Your task to perform on an android device: Show the shopping cart on ebay. Search for razer blade on ebay, select the first entry, and add it to the cart. Image 0: 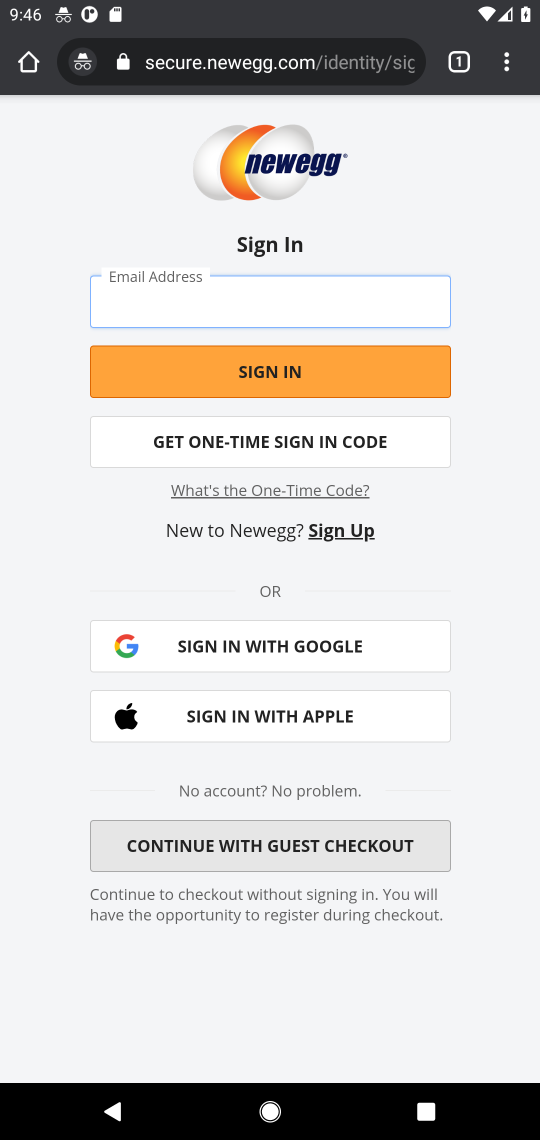
Step 0: press home button
Your task to perform on an android device: Show the shopping cart on ebay. Search for razer blade on ebay, select the first entry, and add it to the cart. Image 1: 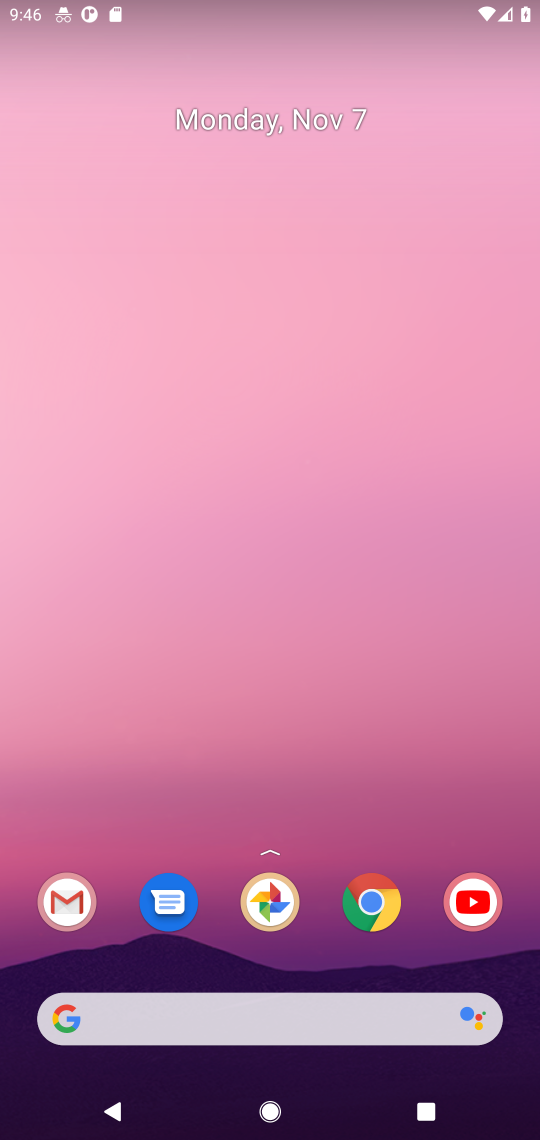
Step 1: click (382, 900)
Your task to perform on an android device: Show the shopping cart on ebay. Search for razer blade on ebay, select the first entry, and add it to the cart. Image 2: 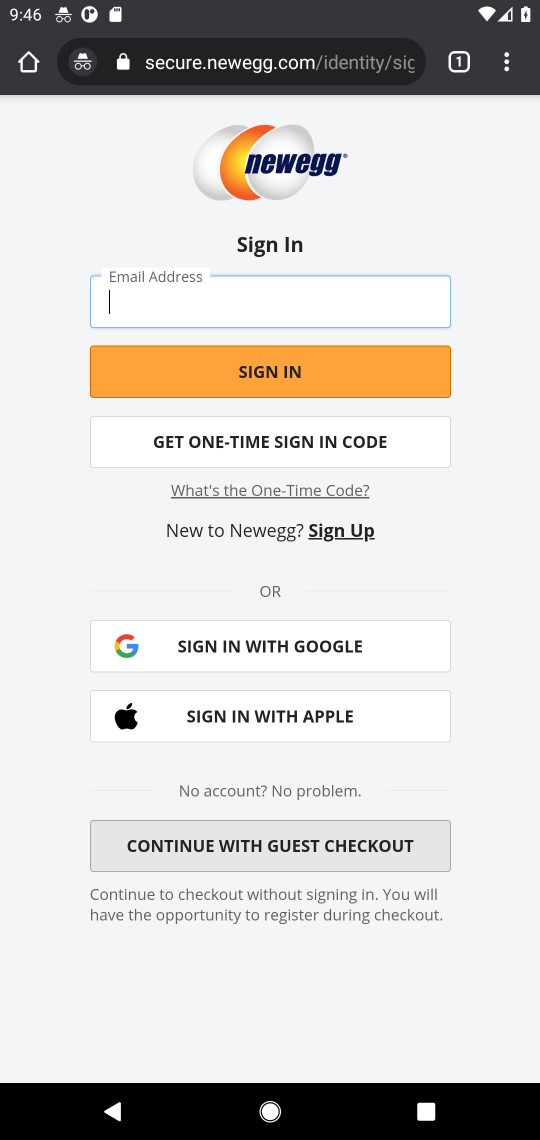
Step 2: click (261, 69)
Your task to perform on an android device: Show the shopping cart on ebay. Search for razer blade on ebay, select the first entry, and add it to the cart. Image 3: 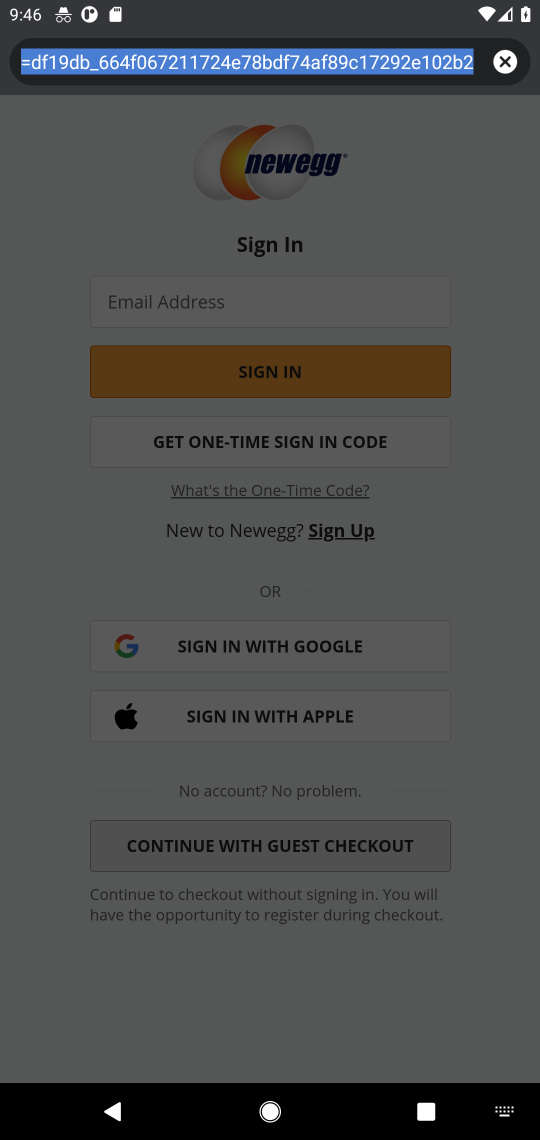
Step 3: type "ebay.com"
Your task to perform on an android device: Show the shopping cart on ebay. Search for razer blade on ebay, select the first entry, and add it to the cart. Image 4: 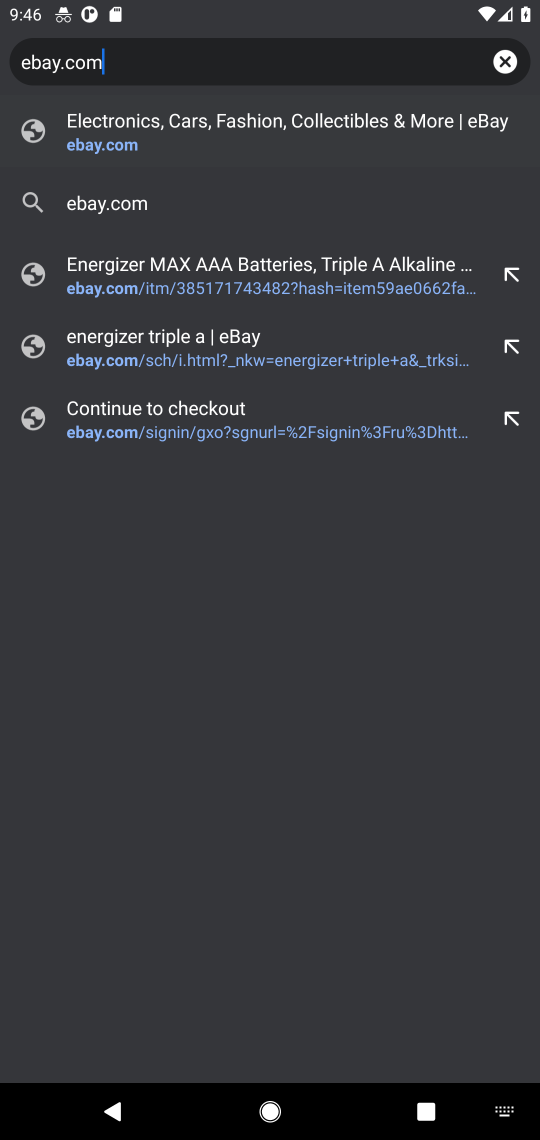
Step 4: click (113, 147)
Your task to perform on an android device: Show the shopping cart on ebay. Search for razer blade on ebay, select the first entry, and add it to the cart. Image 5: 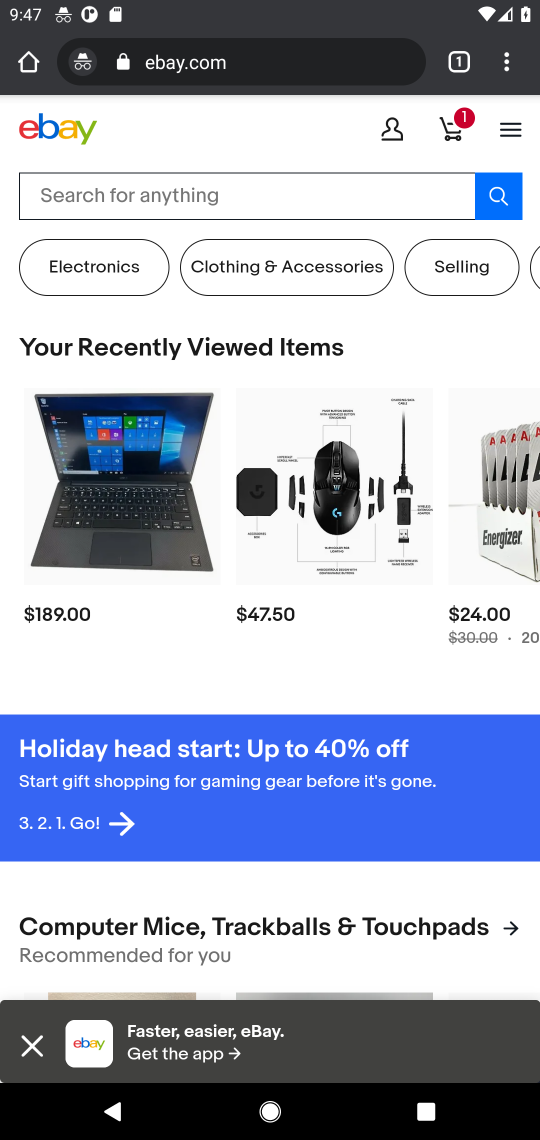
Step 5: click (453, 123)
Your task to perform on an android device: Show the shopping cart on ebay. Search for razer blade on ebay, select the first entry, and add it to the cart. Image 6: 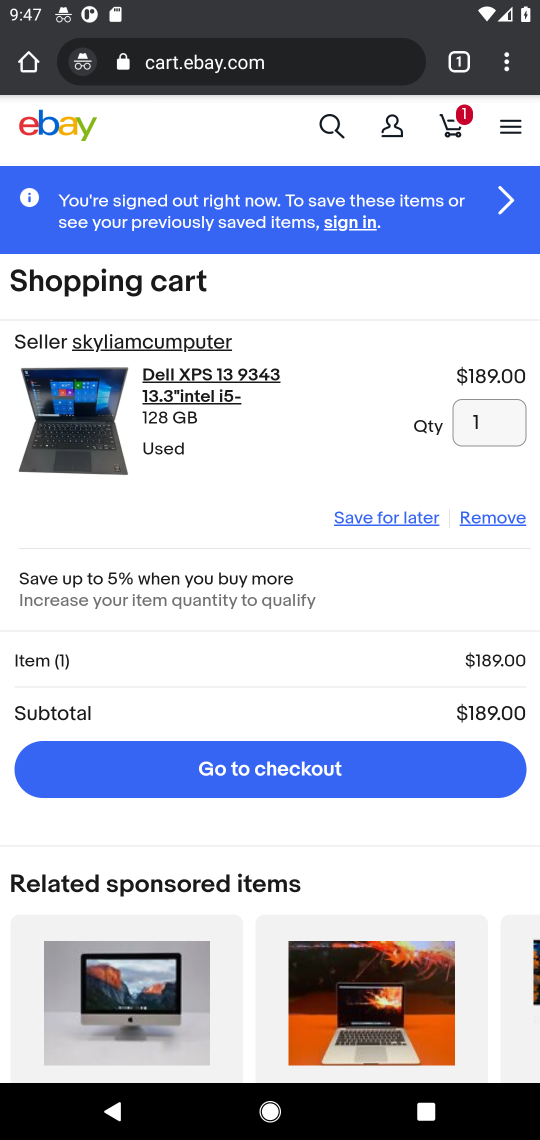
Step 6: click (338, 126)
Your task to perform on an android device: Show the shopping cart on ebay. Search for razer blade on ebay, select the first entry, and add it to the cart. Image 7: 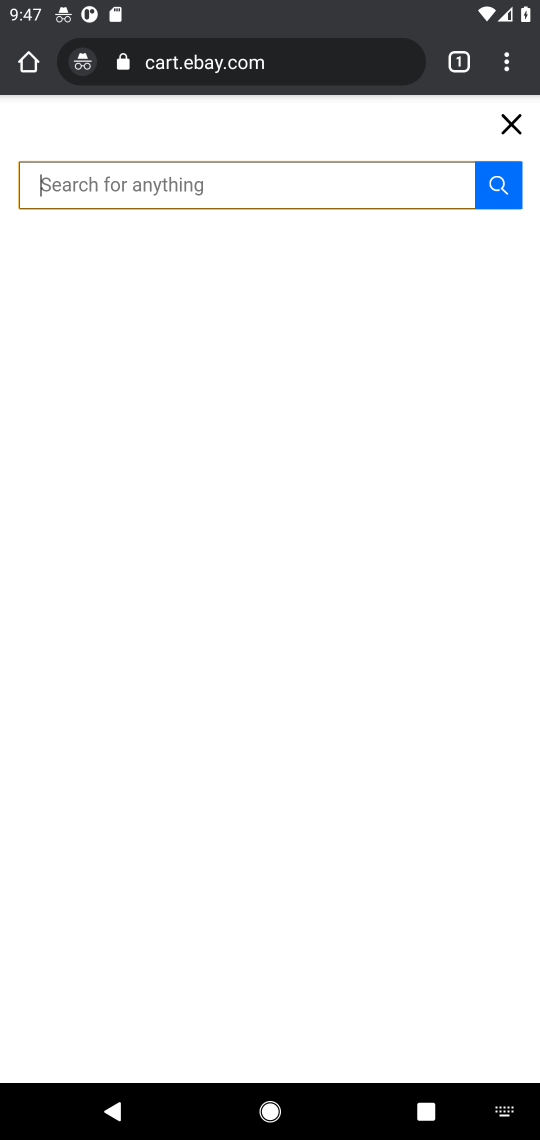
Step 7: type "razer blade"
Your task to perform on an android device: Show the shopping cart on ebay. Search for razer blade on ebay, select the first entry, and add it to the cart. Image 8: 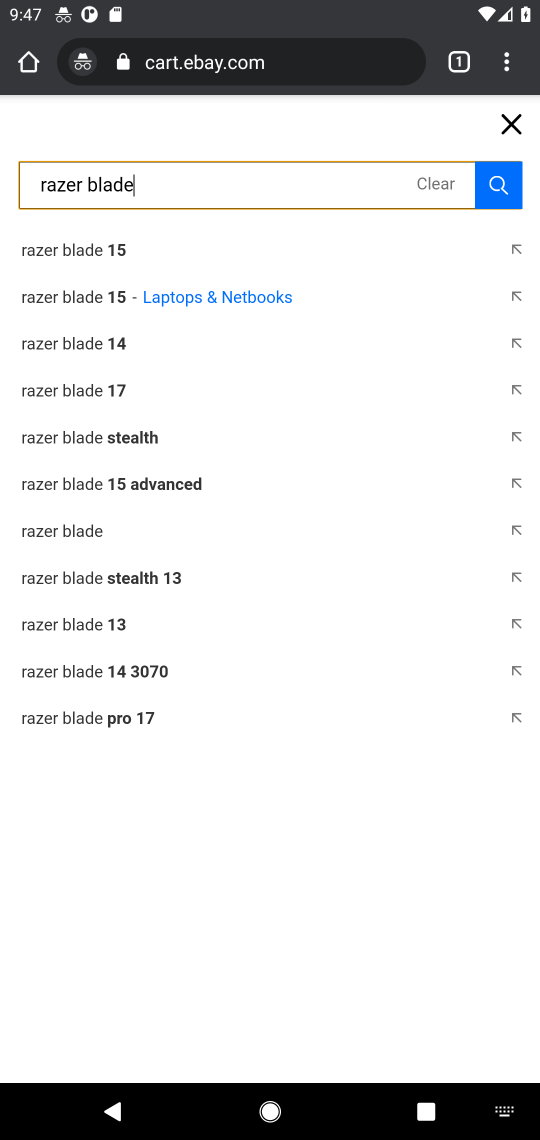
Step 8: click (72, 536)
Your task to perform on an android device: Show the shopping cart on ebay. Search for razer blade on ebay, select the first entry, and add it to the cart. Image 9: 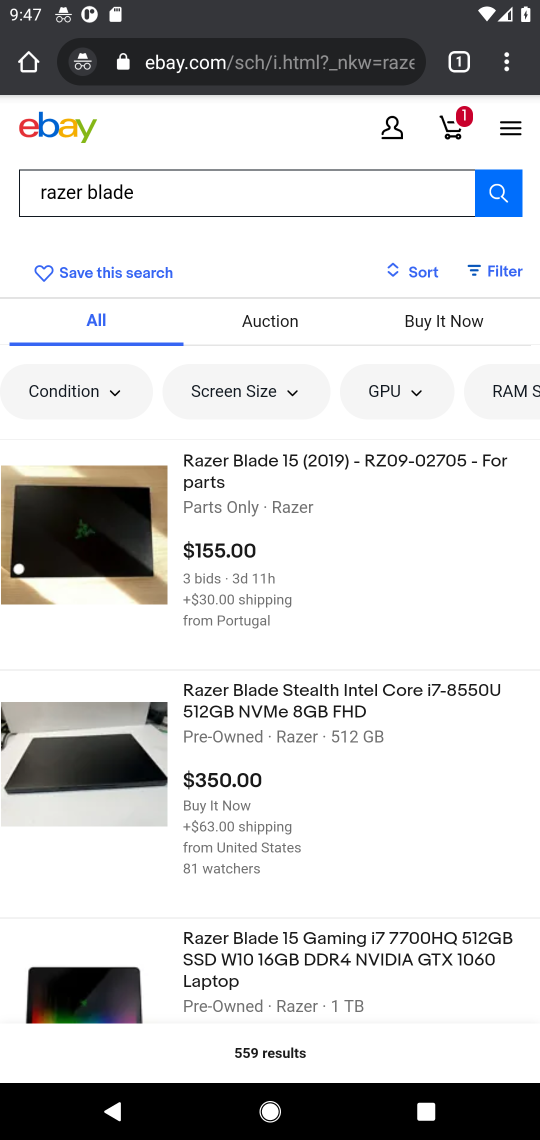
Step 9: click (72, 536)
Your task to perform on an android device: Show the shopping cart on ebay. Search for razer blade on ebay, select the first entry, and add it to the cart. Image 10: 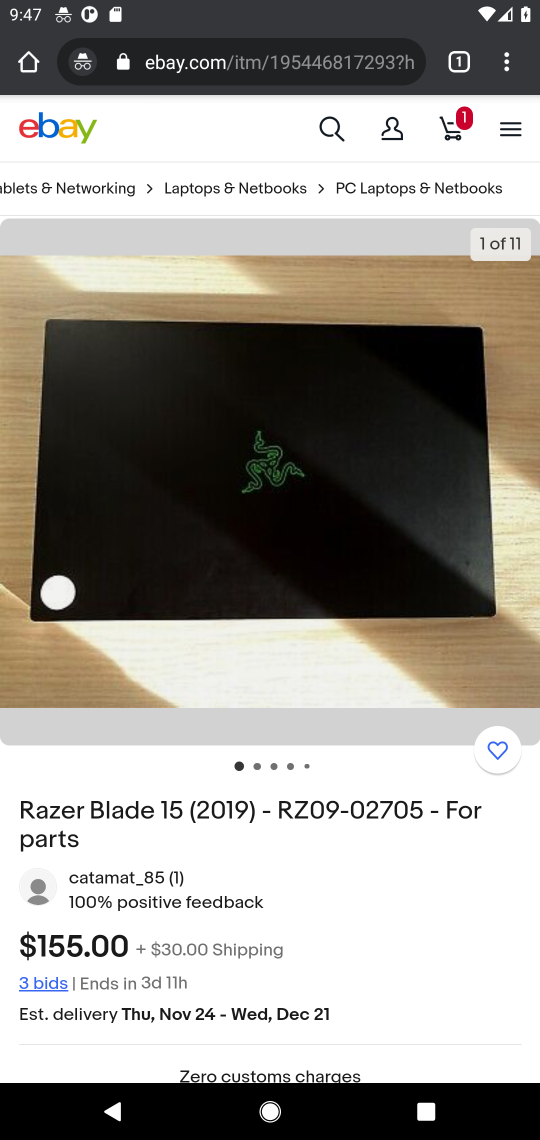
Step 10: drag from (273, 926) to (247, 419)
Your task to perform on an android device: Show the shopping cart on ebay. Search for razer blade on ebay, select the first entry, and add it to the cart. Image 11: 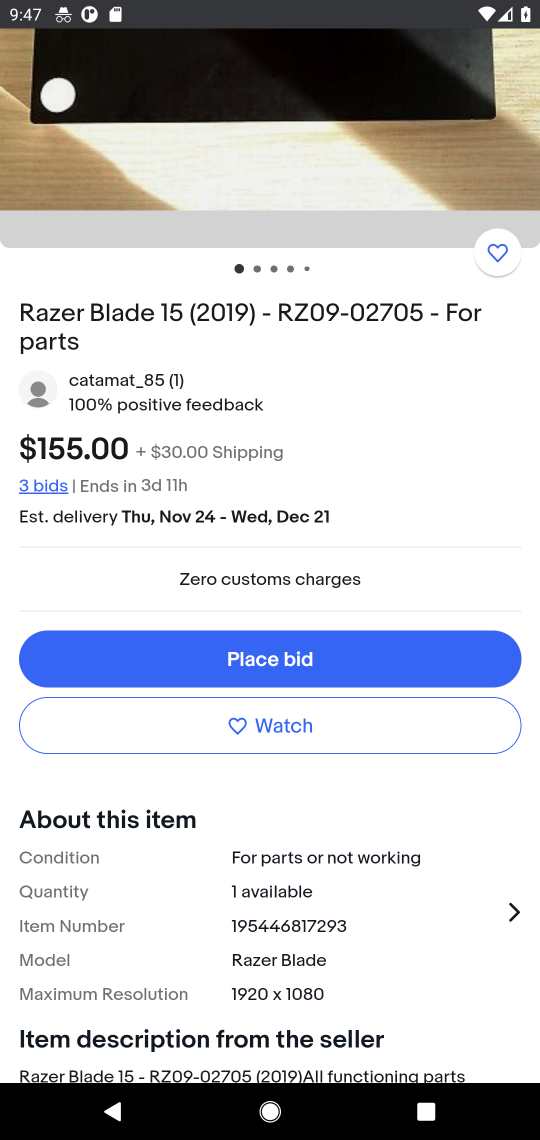
Step 11: click (267, 665)
Your task to perform on an android device: Show the shopping cart on ebay. Search for razer blade on ebay, select the first entry, and add it to the cart. Image 12: 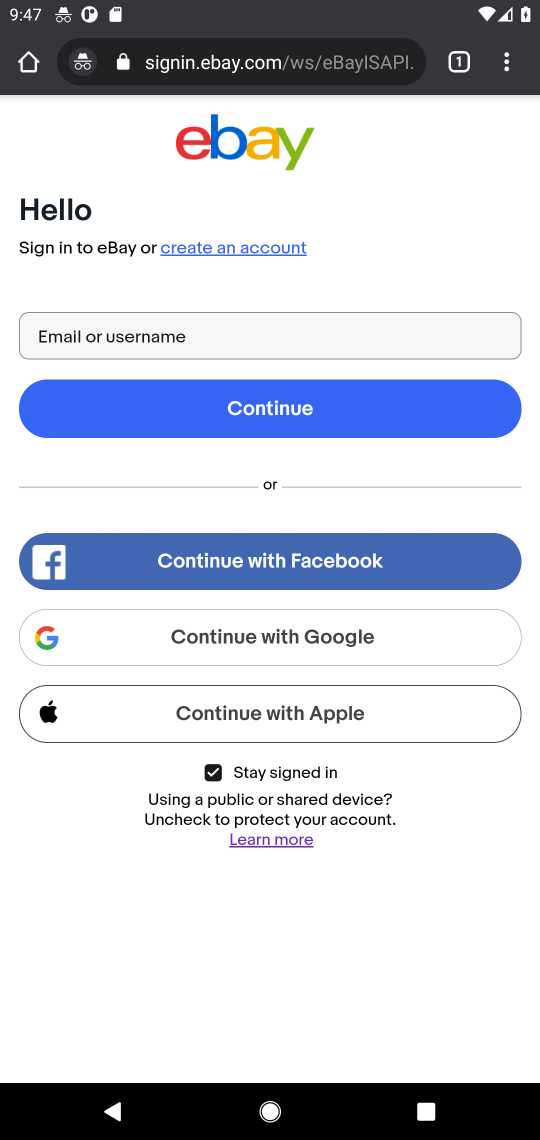
Step 12: task complete